Your task to perform on an android device: open a bookmark in the chrome app Image 0: 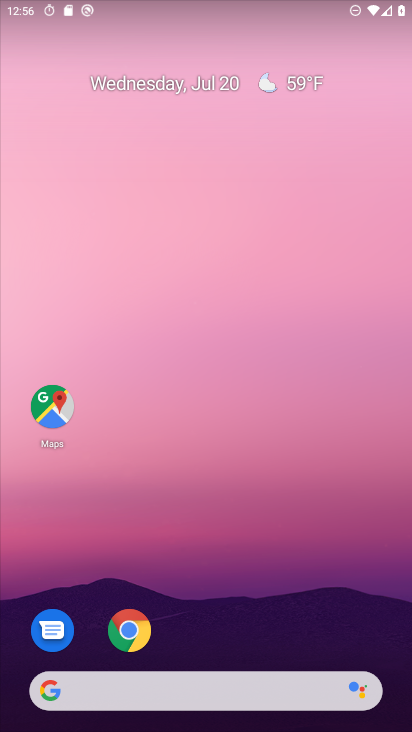
Step 0: drag from (176, 593) to (253, 66)
Your task to perform on an android device: open a bookmark in the chrome app Image 1: 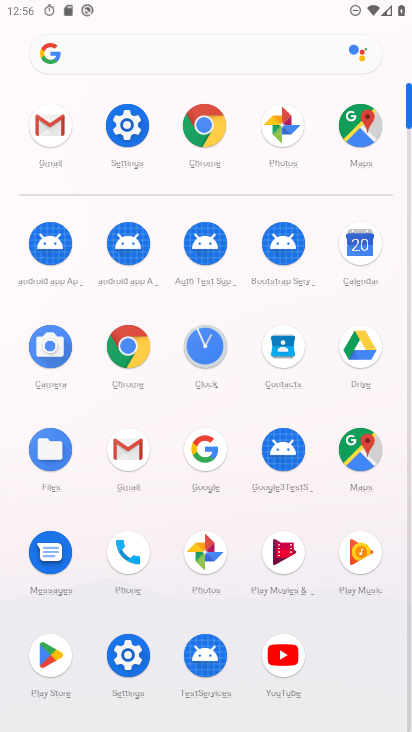
Step 1: click (136, 347)
Your task to perform on an android device: open a bookmark in the chrome app Image 2: 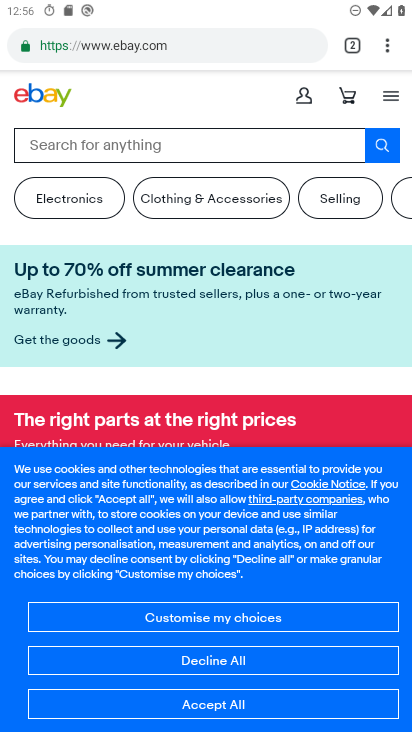
Step 2: task complete